Your task to perform on an android device: What's the weather going to be tomorrow? Image 0: 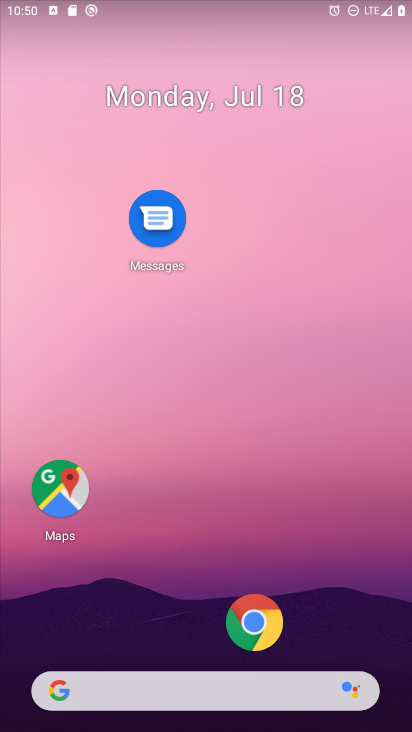
Step 0: drag from (192, 643) to (174, 54)
Your task to perform on an android device: What's the weather going to be tomorrow? Image 1: 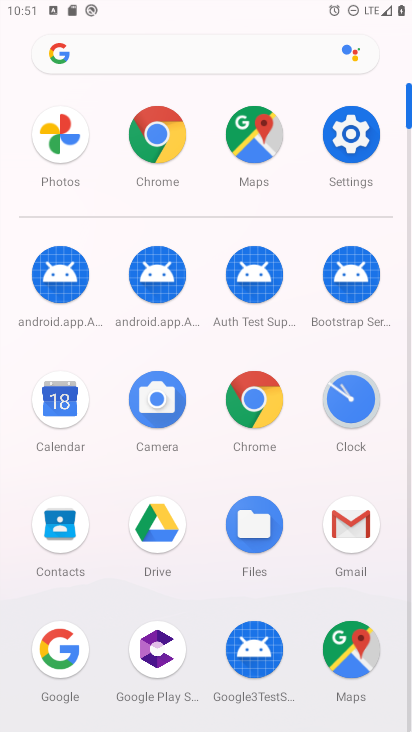
Step 1: drag from (281, 504) to (242, 149)
Your task to perform on an android device: What's the weather going to be tomorrow? Image 2: 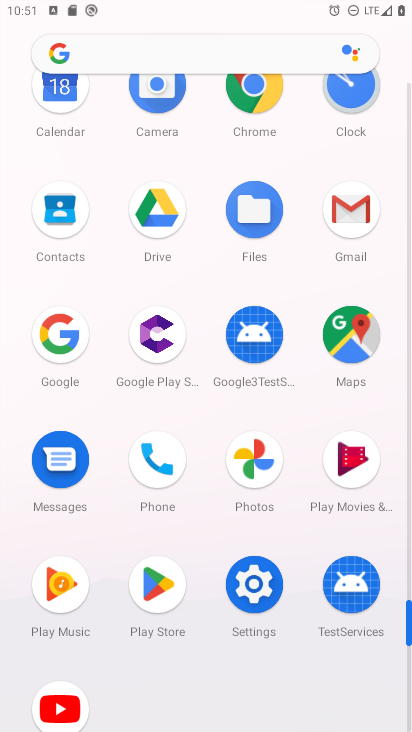
Step 2: click (52, 333)
Your task to perform on an android device: What's the weather going to be tomorrow? Image 3: 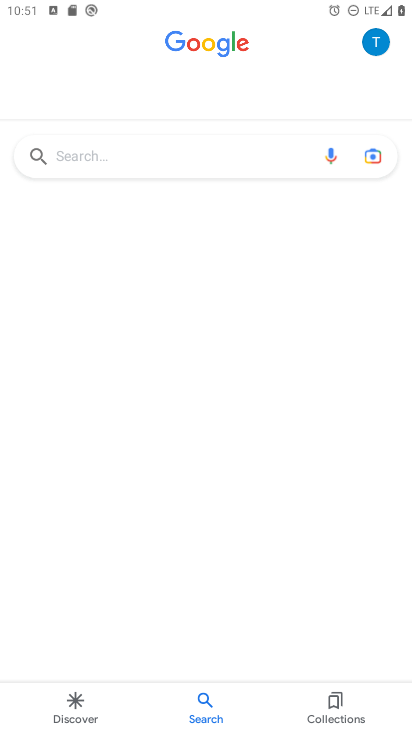
Step 3: click (199, 157)
Your task to perform on an android device: What's the weather going to be tomorrow? Image 4: 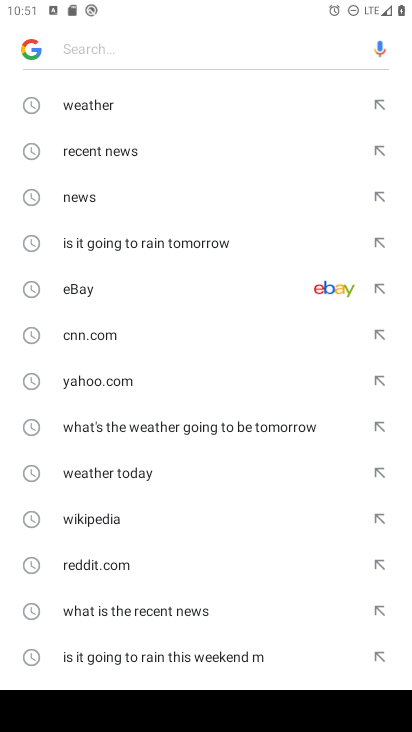
Step 4: click (110, 113)
Your task to perform on an android device: What's the weather going to be tomorrow? Image 5: 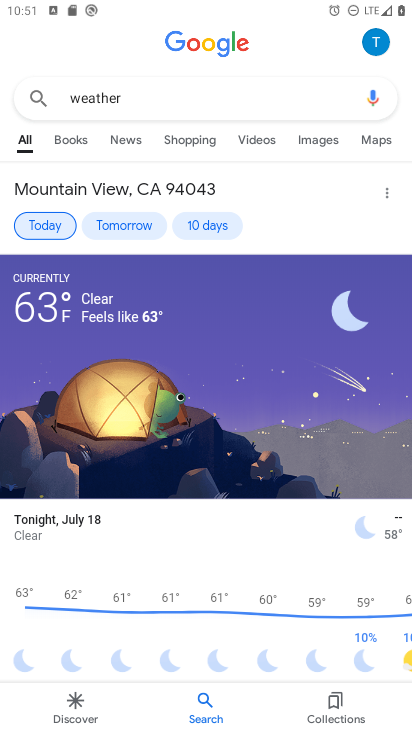
Step 5: click (114, 234)
Your task to perform on an android device: What's the weather going to be tomorrow? Image 6: 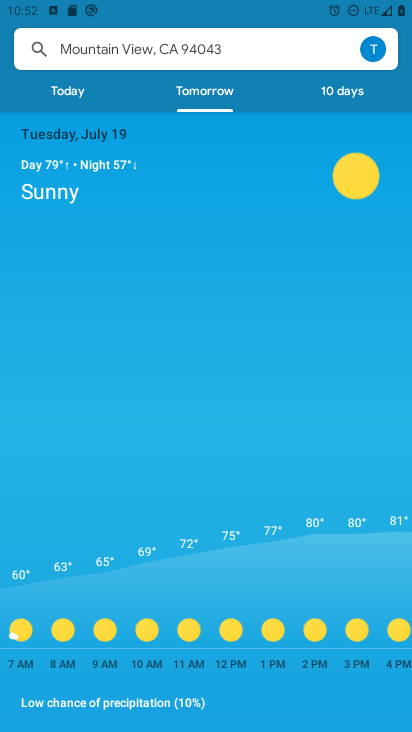
Step 6: task complete